Your task to perform on an android device: Search for sushi restaurants on Maps Image 0: 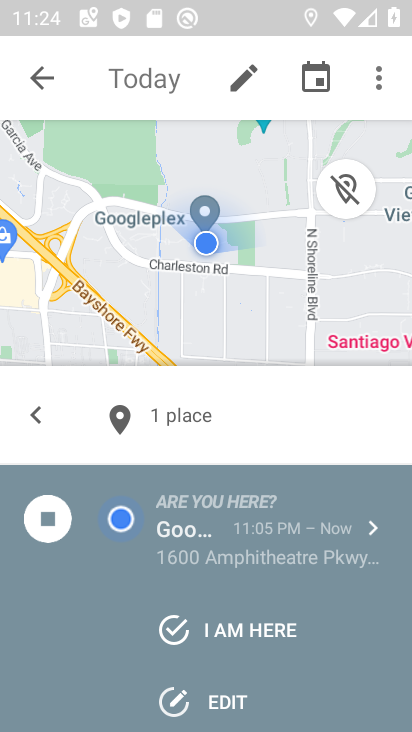
Step 0: press back button
Your task to perform on an android device: Search for sushi restaurants on Maps Image 1: 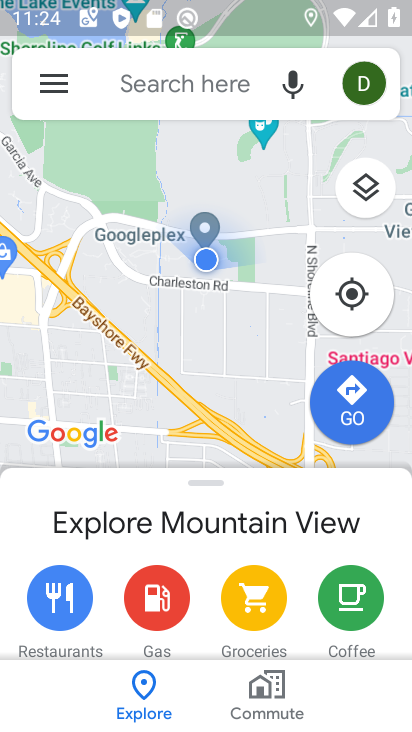
Step 1: click (189, 86)
Your task to perform on an android device: Search for sushi restaurants on Maps Image 2: 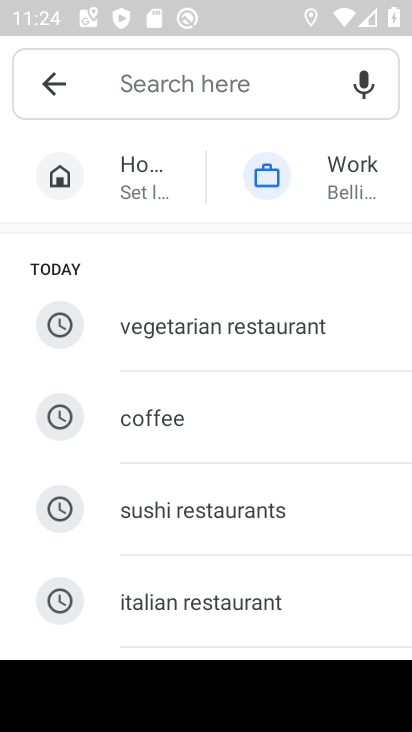
Step 2: click (273, 507)
Your task to perform on an android device: Search for sushi restaurants on Maps Image 3: 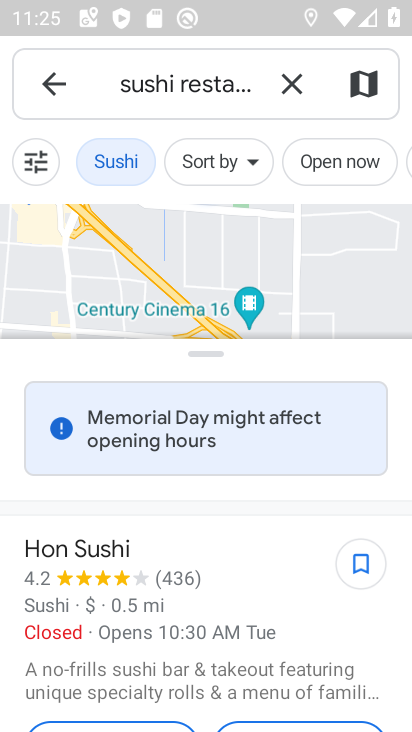
Step 3: task complete